Your task to perform on an android device: Go to eBay Image 0: 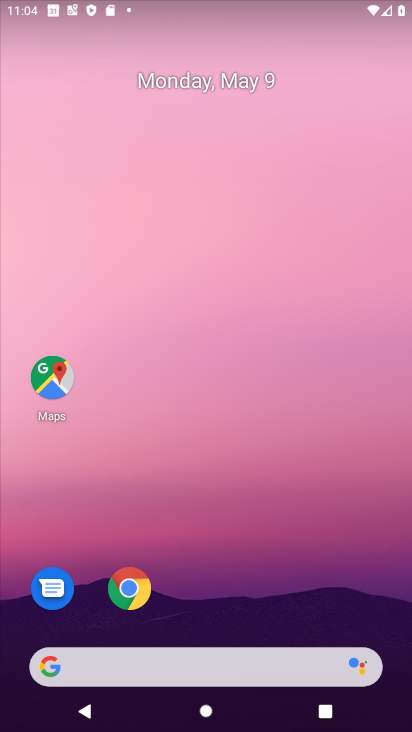
Step 0: drag from (228, 636) to (226, 1)
Your task to perform on an android device: Go to eBay Image 1: 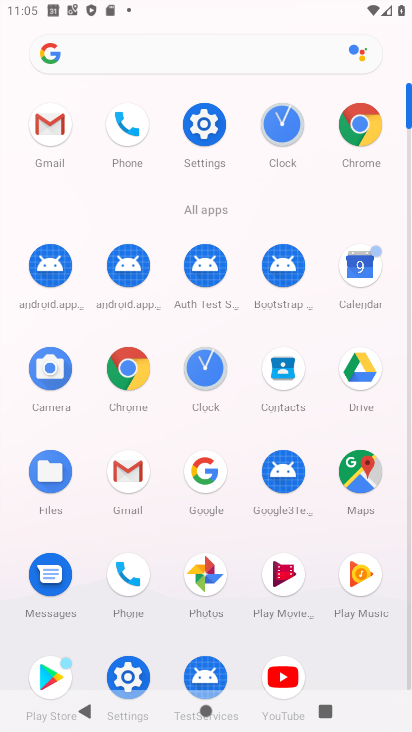
Step 1: click (364, 127)
Your task to perform on an android device: Go to eBay Image 2: 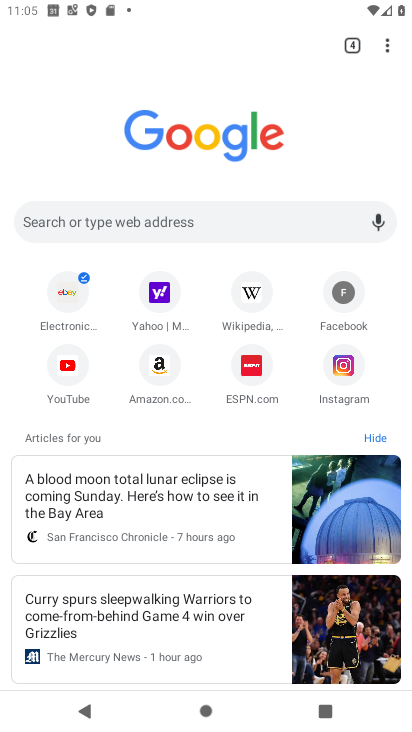
Step 2: click (63, 287)
Your task to perform on an android device: Go to eBay Image 3: 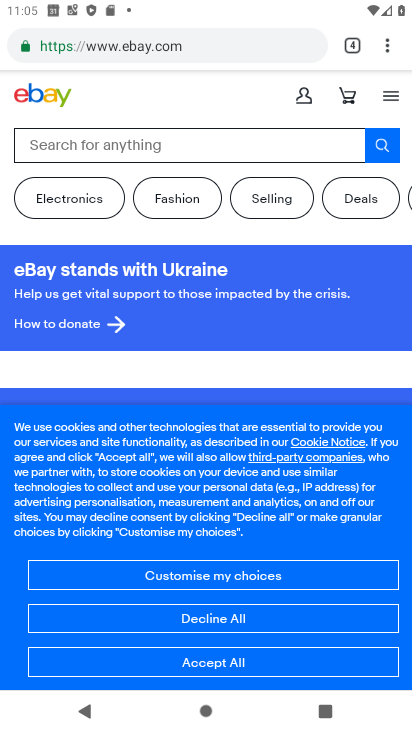
Step 3: task complete